Your task to perform on an android device: open app "Cash App" (install if not already installed) Image 0: 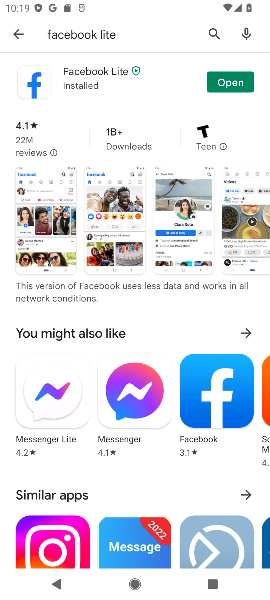
Step 0: click (121, 32)
Your task to perform on an android device: open app "Cash App" (install if not already installed) Image 1: 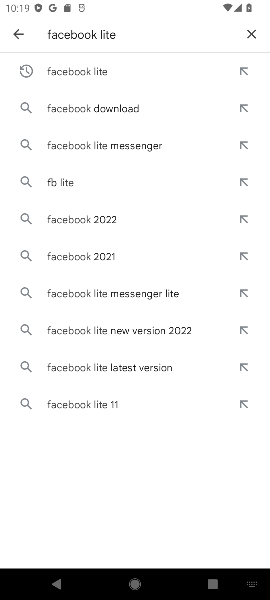
Step 1: click (255, 29)
Your task to perform on an android device: open app "Cash App" (install if not already installed) Image 2: 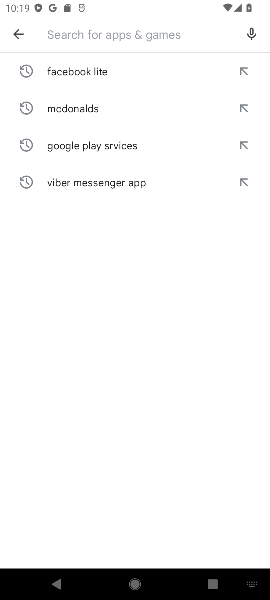
Step 2: type "CashApp "
Your task to perform on an android device: open app "Cash App" (install if not already installed) Image 3: 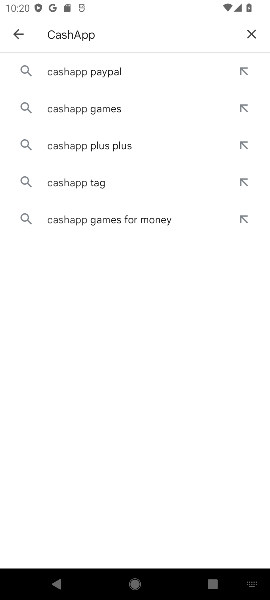
Step 3: click (68, 73)
Your task to perform on an android device: open app "Cash App" (install if not already installed) Image 4: 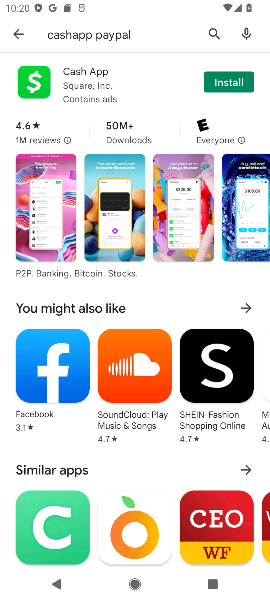
Step 4: click (219, 84)
Your task to perform on an android device: open app "Cash App" (install if not already installed) Image 5: 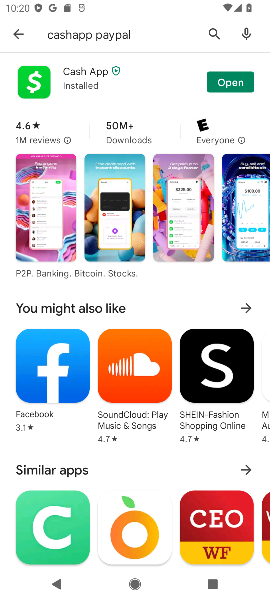
Step 5: click (226, 82)
Your task to perform on an android device: open app "Cash App" (install if not already installed) Image 6: 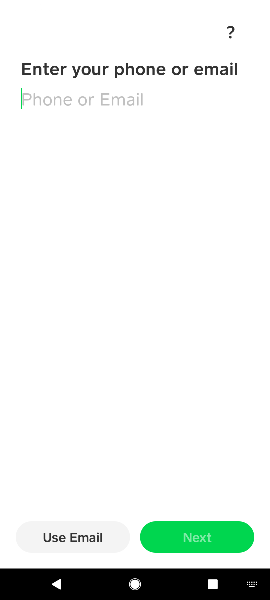
Step 6: task complete